Your task to perform on an android device: Do I have any events today? Image 0: 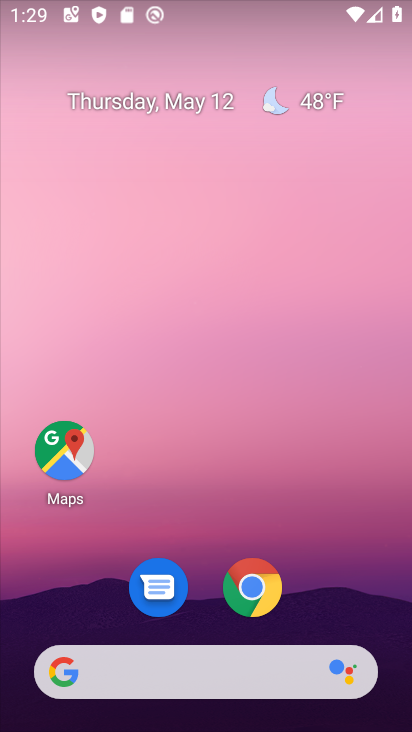
Step 0: drag from (256, 669) to (314, 104)
Your task to perform on an android device: Do I have any events today? Image 1: 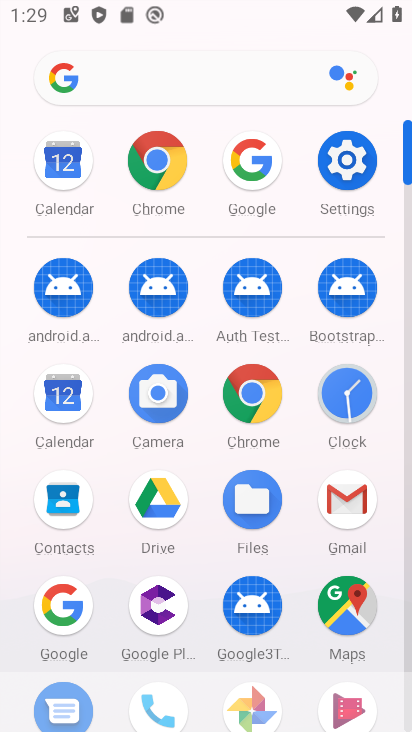
Step 1: click (81, 415)
Your task to perform on an android device: Do I have any events today? Image 2: 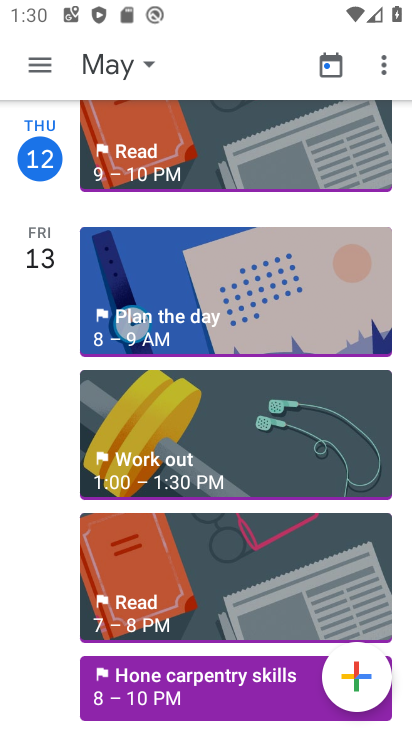
Step 2: task complete